Your task to perform on an android device: all mails in gmail Image 0: 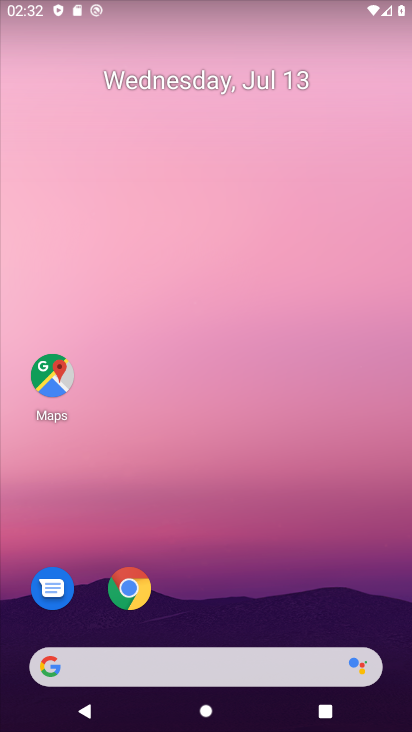
Step 0: drag from (284, 579) to (243, 70)
Your task to perform on an android device: all mails in gmail Image 1: 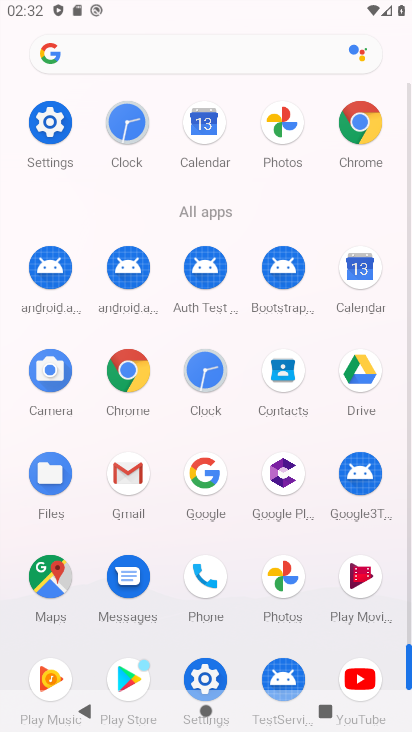
Step 1: click (125, 470)
Your task to perform on an android device: all mails in gmail Image 2: 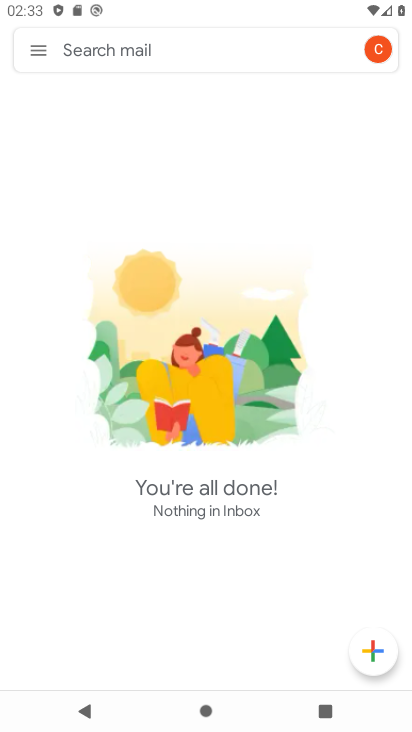
Step 2: click (43, 51)
Your task to perform on an android device: all mails in gmail Image 3: 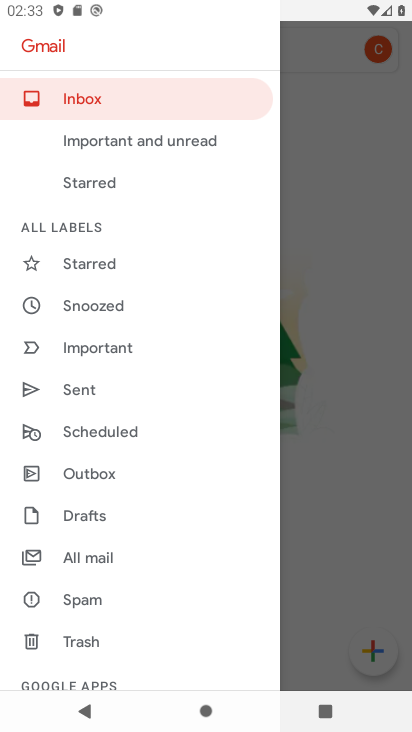
Step 3: drag from (142, 595) to (138, 337)
Your task to perform on an android device: all mails in gmail Image 4: 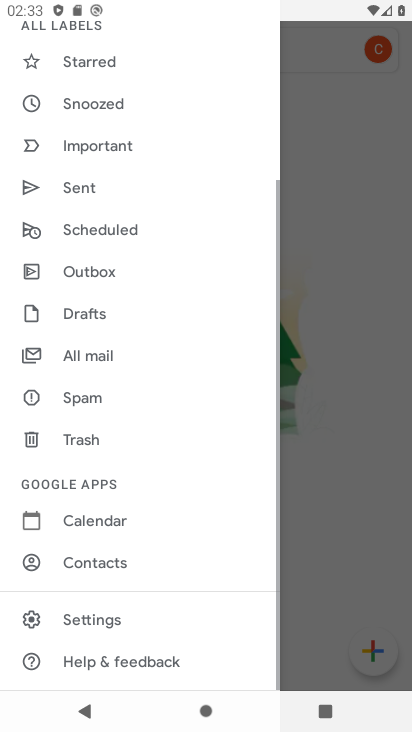
Step 4: click (57, 355)
Your task to perform on an android device: all mails in gmail Image 5: 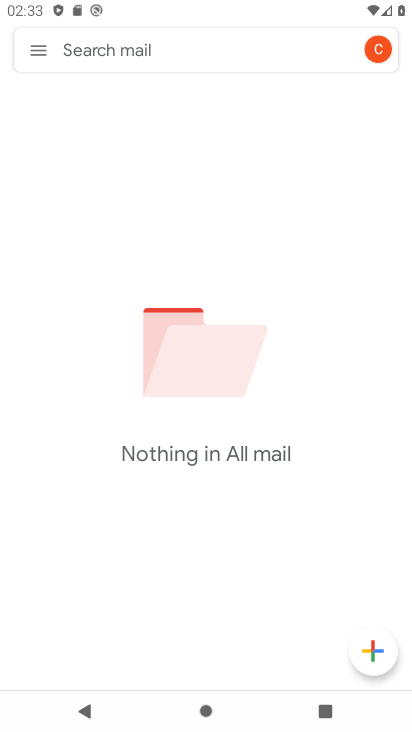
Step 5: task complete